Your task to perform on an android device: turn off notifications settings in the gmail app Image 0: 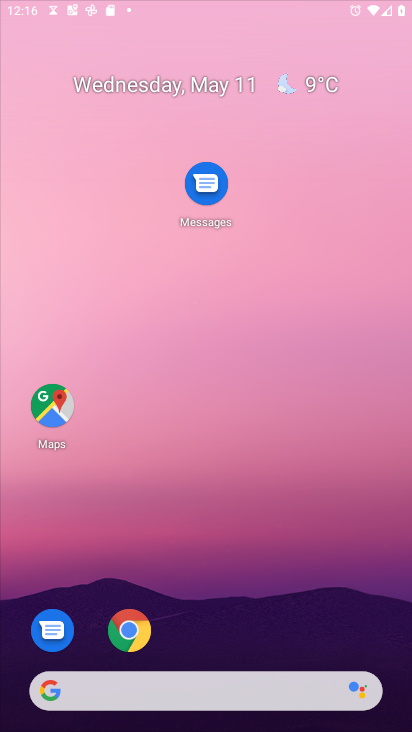
Step 0: press home button
Your task to perform on an android device: turn off notifications settings in the gmail app Image 1: 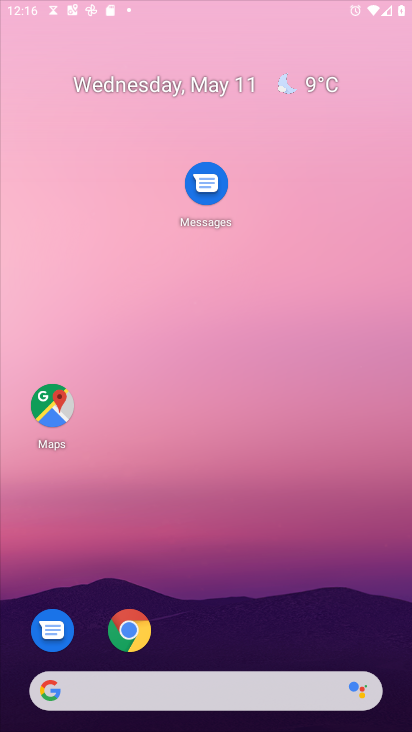
Step 1: click (141, 632)
Your task to perform on an android device: turn off notifications settings in the gmail app Image 2: 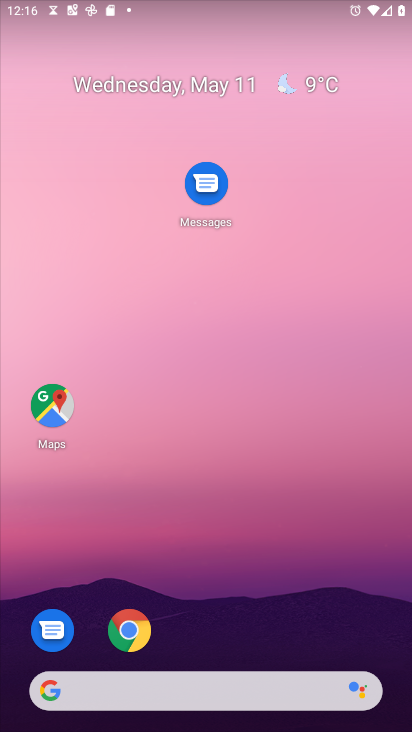
Step 2: task complete